Your task to perform on an android device: Go to wifi settings Image 0: 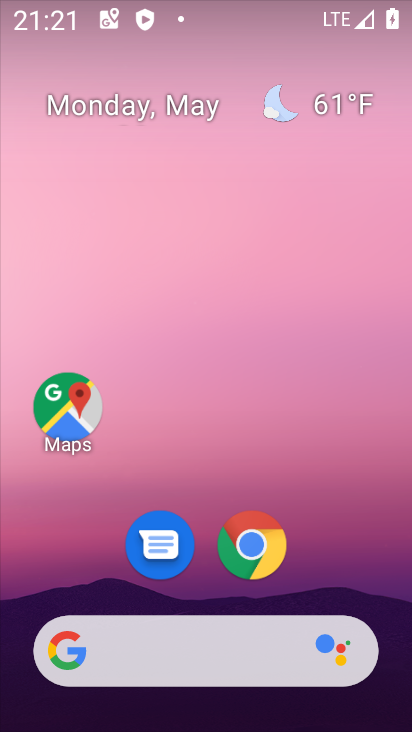
Step 0: drag from (205, 674) to (212, 206)
Your task to perform on an android device: Go to wifi settings Image 1: 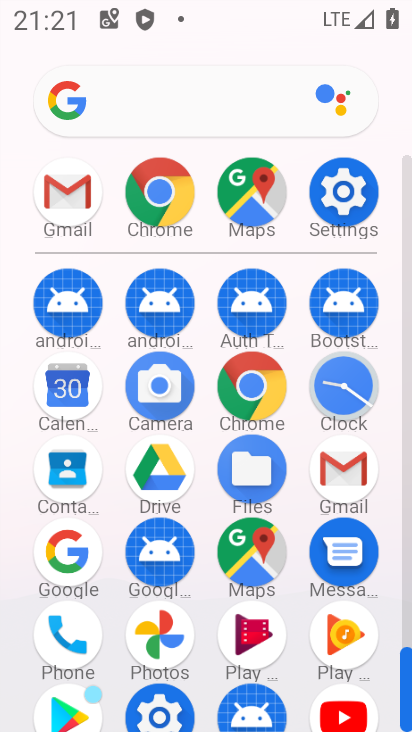
Step 1: click (336, 183)
Your task to perform on an android device: Go to wifi settings Image 2: 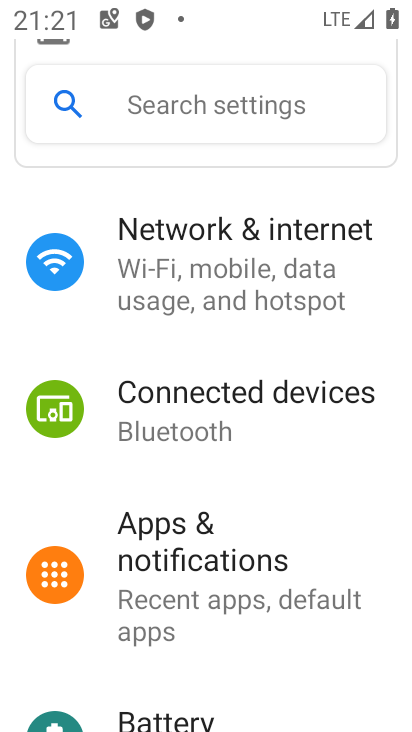
Step 2: click (193, 250)
Your task to perform on an android device: Go to wifi settings Image 3: 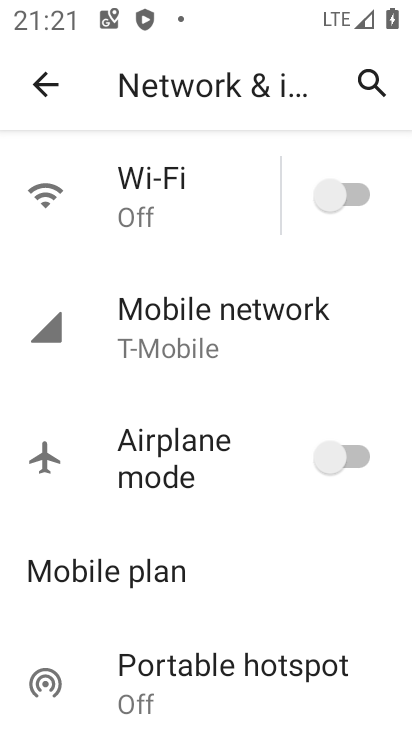
Step 3: click (143, 178)
Your task to perform on an android device: Go to wifi settings Image 4: 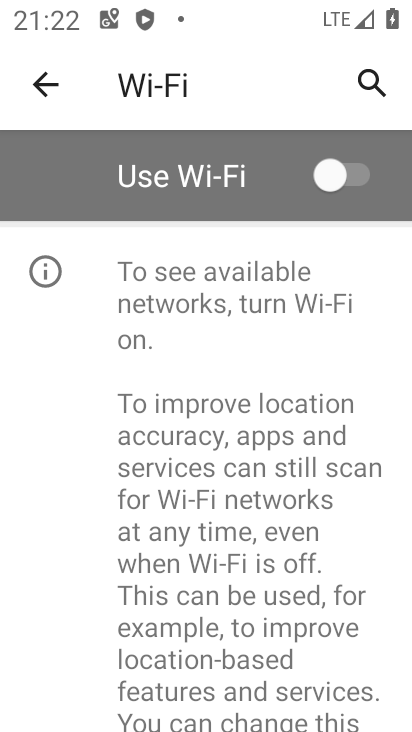
Step 4: task complete